Your task to perform on an android device: find photos in the google photos app Image 0: 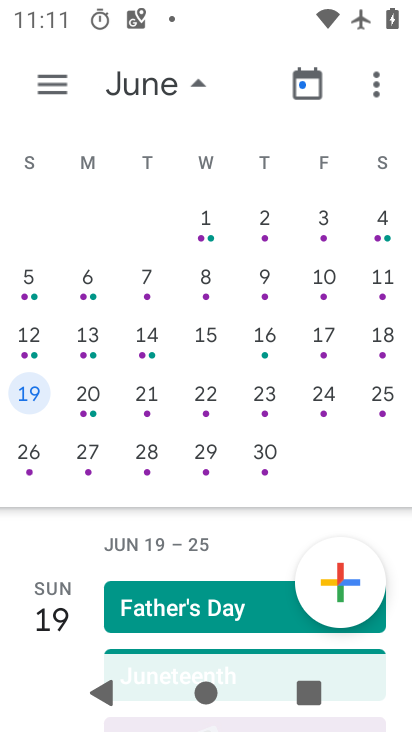
Step 0: press home button
Your task to perform on an android device: find photos in the google photos app Image 1: 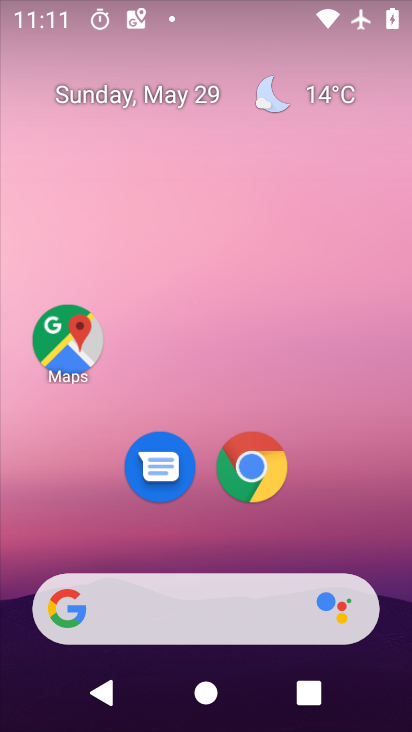
Step 1: drag from (206, 545) to (194, 139)
Your task to perform on an android device: find photos in the google photos app Image 2: 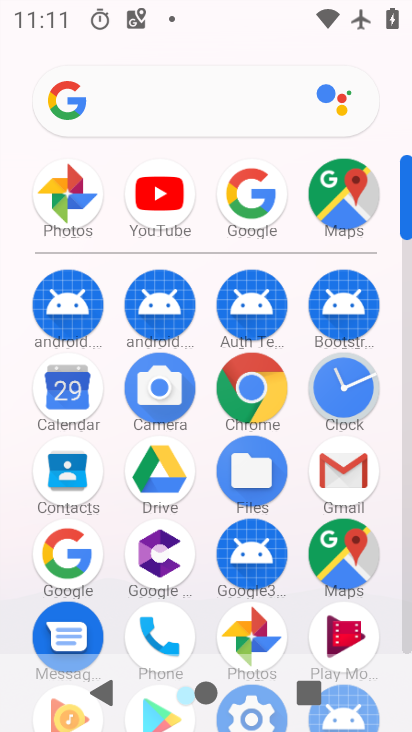
Step 2: click (72, 186)
Your task to perform on an android device: find photos in the google photos app Image 3: 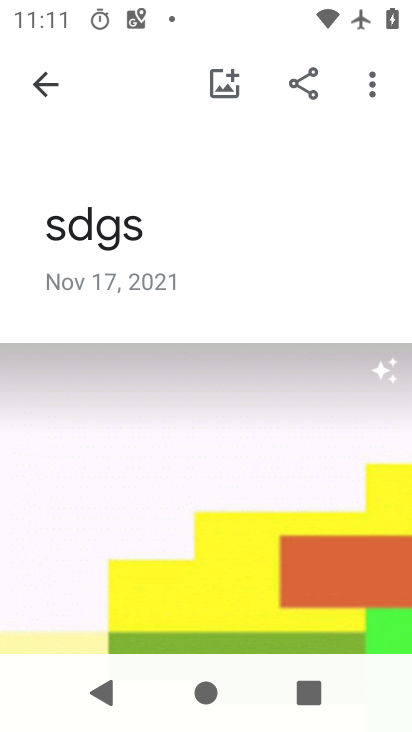
Step 3: click (45, 81)
Your task to perform on an android device: find photos in the google photos app Image 4: 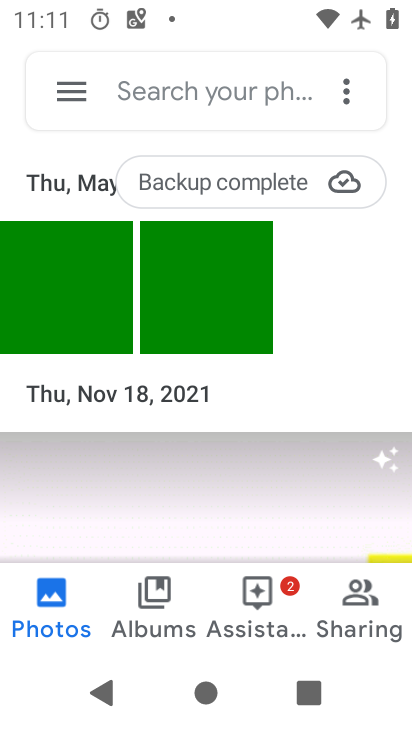
Step 4: click (134, 89)
Your task to perform on an android device: find photos in the google photos app Image 5: 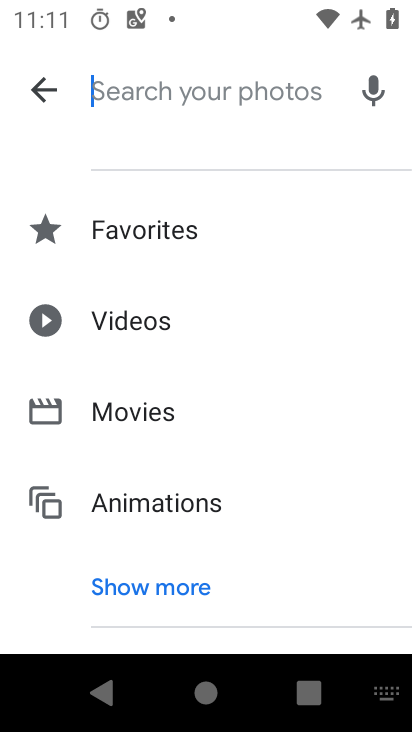
Step 5: type "aa"
Your task to perform on an android device: find photos in the google photos app Image 6: 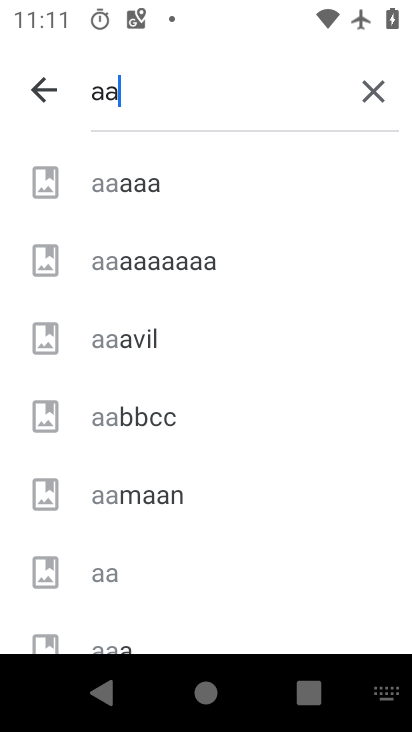
Step 6: click (144, 412)
Your task to perform on an android device: find photos in the google photos app Image 7: 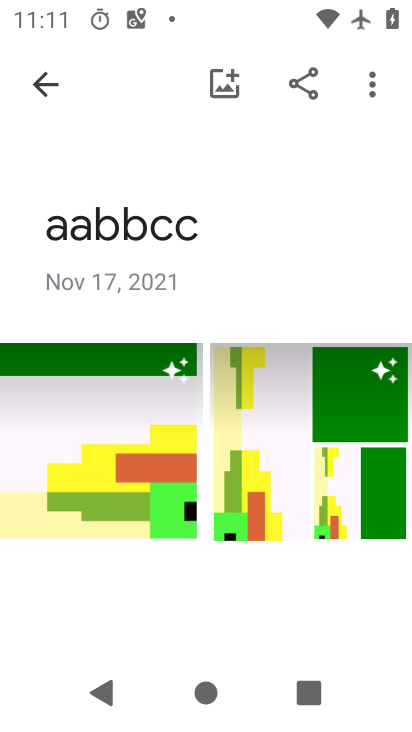
Step 7: task complete